Your task to perform on an android device: set an alarm Image 0: 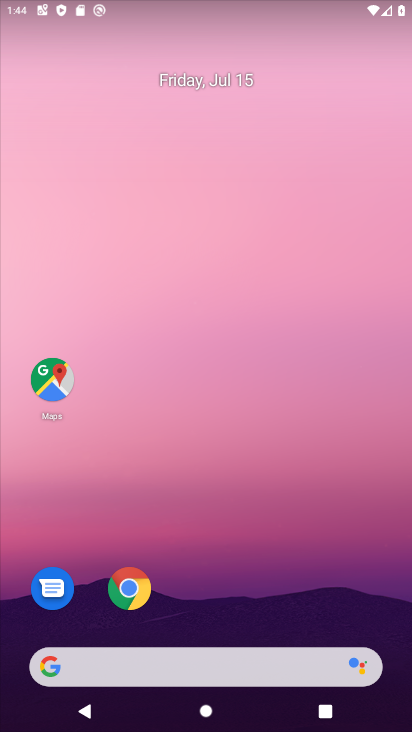
Step 0: drag from (180, 671) to (265, 258)
Your task to perform on an android device: set an alarm Image 1: 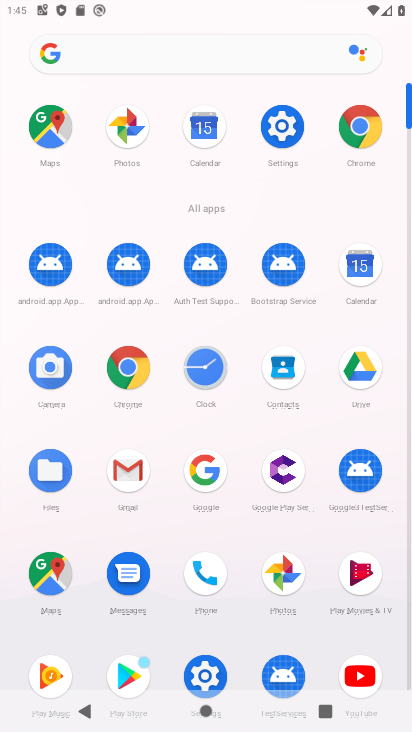
Step 1: click (207, 365)
Your task to perform on an android device: set an alarm Image 2: 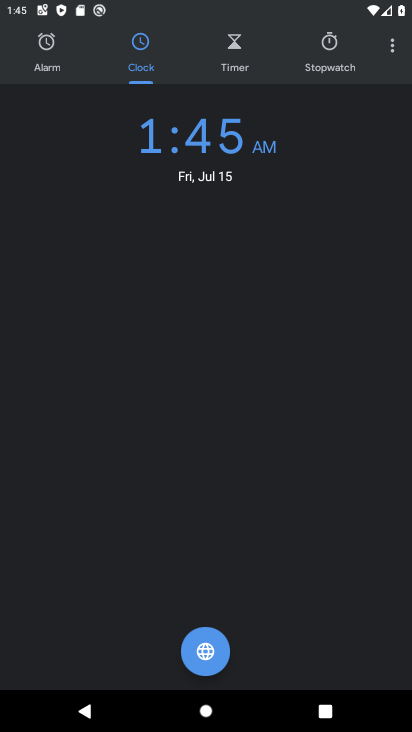
Step 2: click (45, 42)
Your task to perform on an android device: set an alarm Image 3: 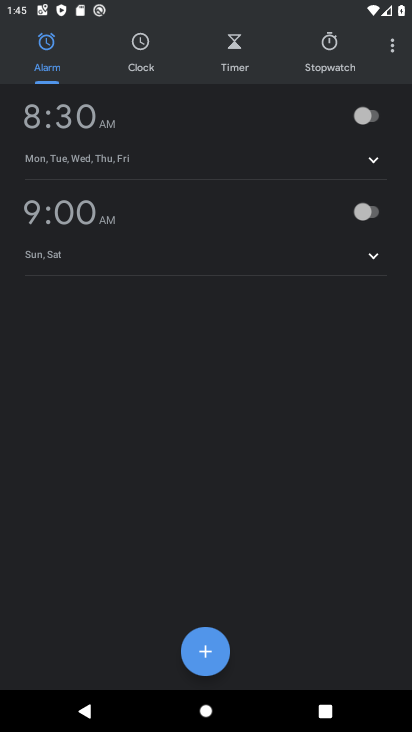
Step 3: click (208, 650)
Your task to perform on an android device: set an alarm Image 4: 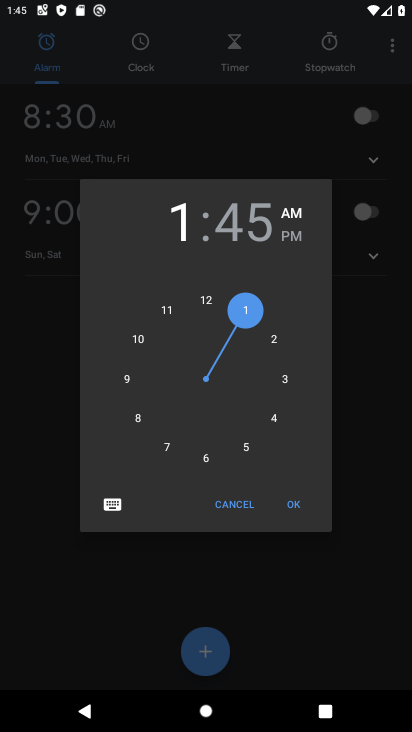
Step 4: click (125, 384)
Your task to perform on an android device: set an alarm Image 5: 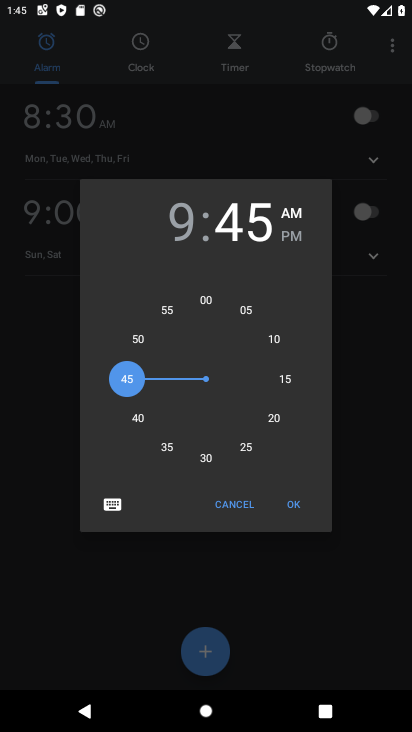
Step 5: click (288, 377)
Your task to perform on an android device: set an alarm Image 6: 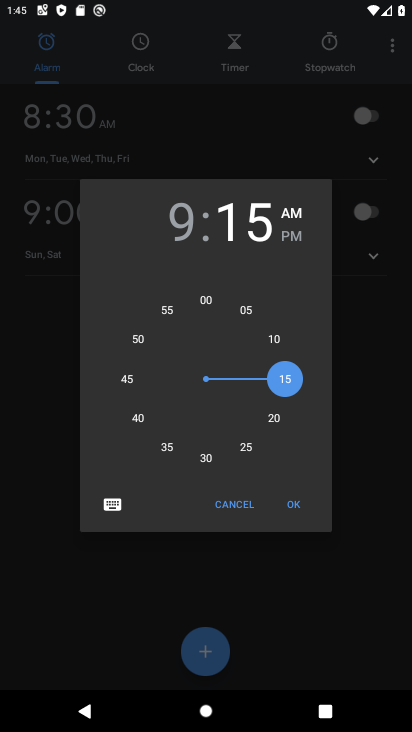
Step 6: click (295, 238)
Your task to perform on an android device: set an alarm Image 7: 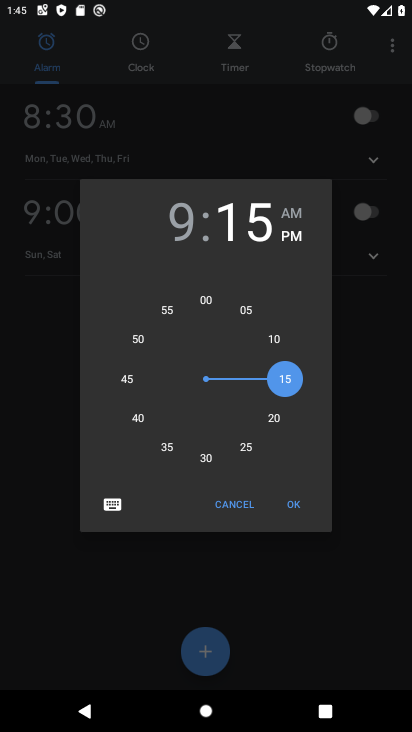
Step 7: click (296, 499)
Your task to perform on an android device: set an alarm Image 8: 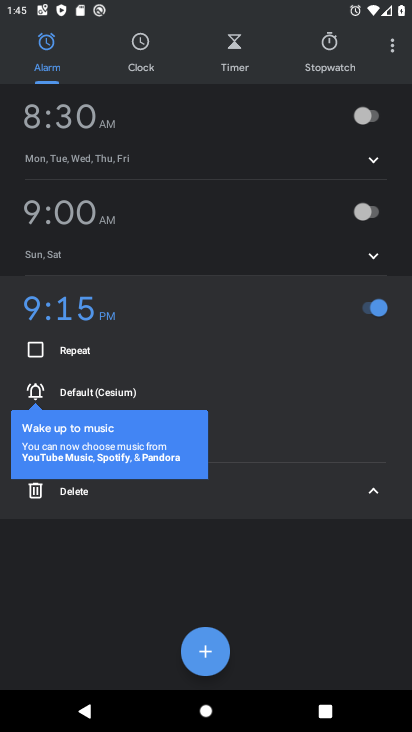
Step 8: click (371, 494)
Your task to perform on an android device: set an alarm Image 9: 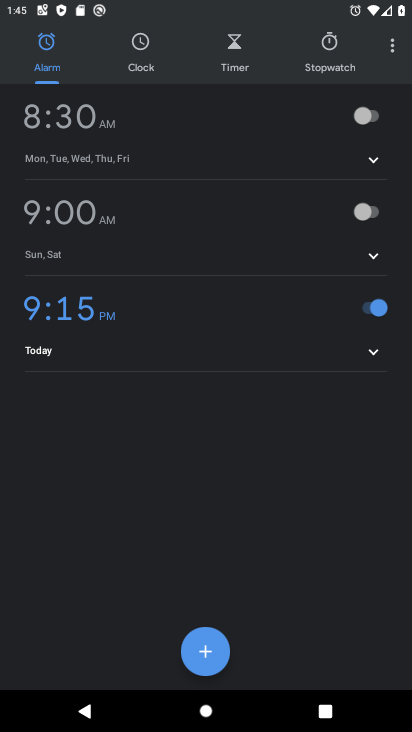
Step 9: task complete